Your task to perform on an android device: Open Google Image 0: 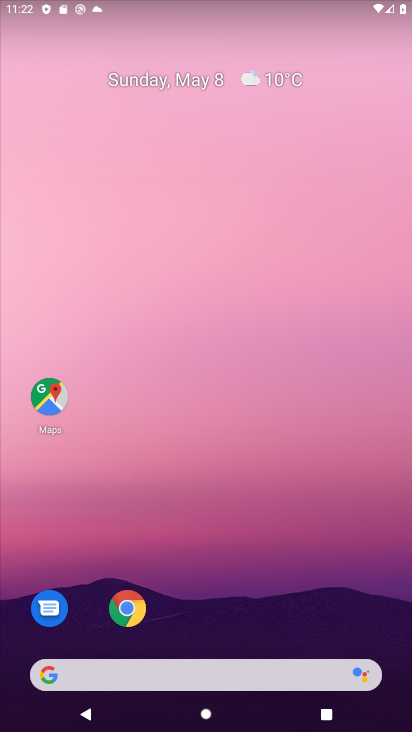
Step 0: drag from (344, 616) to (272, 7)
Your task to perform on an android device: Open Google Image 1: 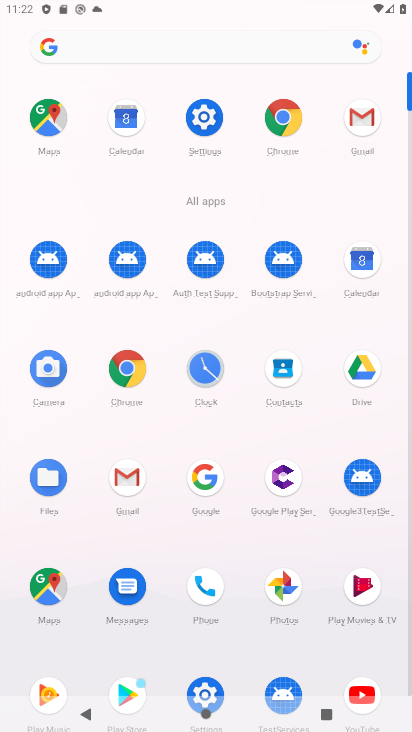
Step 1: click (293, 120)
Your task to perform on an android device: Open Google Image 2: 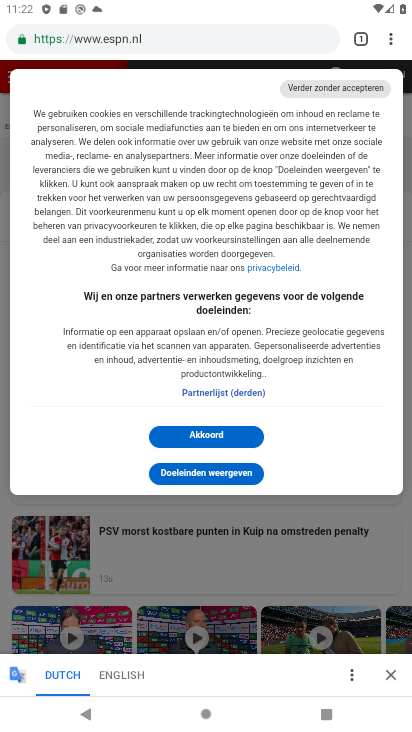
Step 2: click (390, 676)
Your task to perform on an android device: Open Google Image 3: 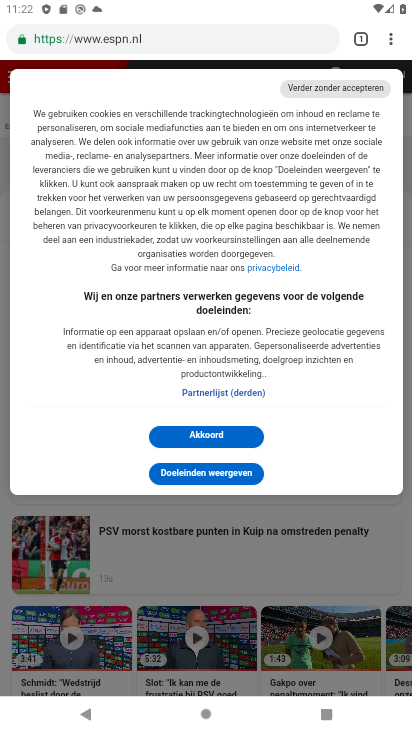
Step 3: click (261, 39)
Your task to perform on an android device: Open Google Image 4: 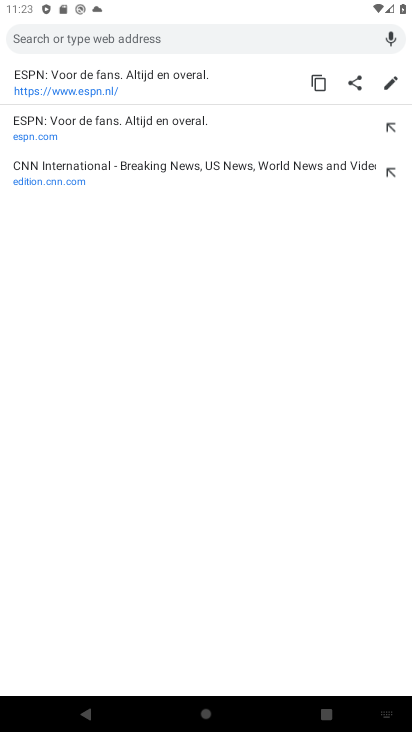
Step 4: type "google.com"
Your task to perform on an android device: Open Google Image 5: 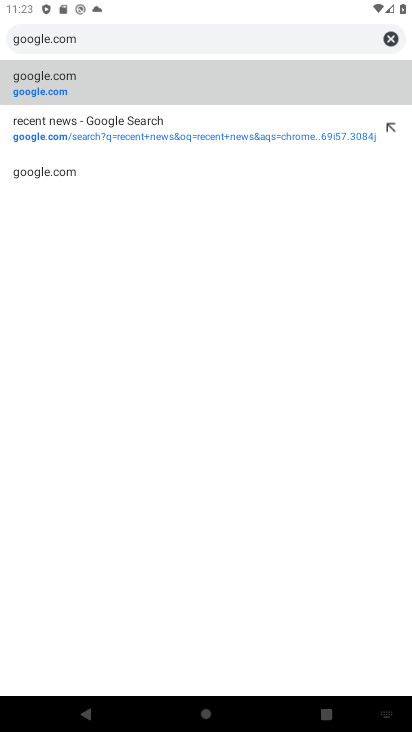
Step 5: click (30, 96)
Your task to perform on an android device: Open Google Image 6: 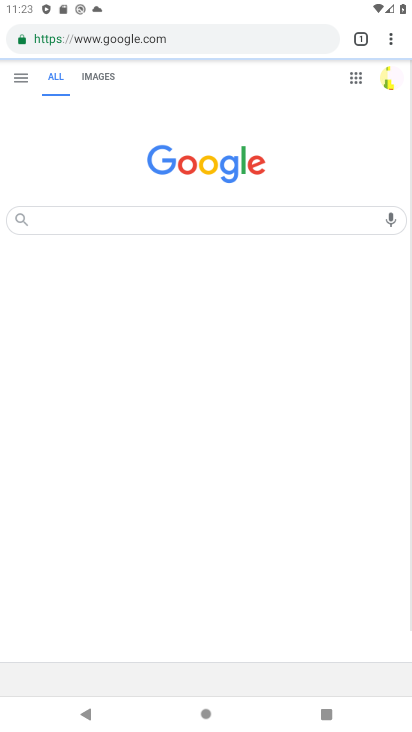
Step 6: task complete